Your task to perform on an android device: turn off location history Image 0: 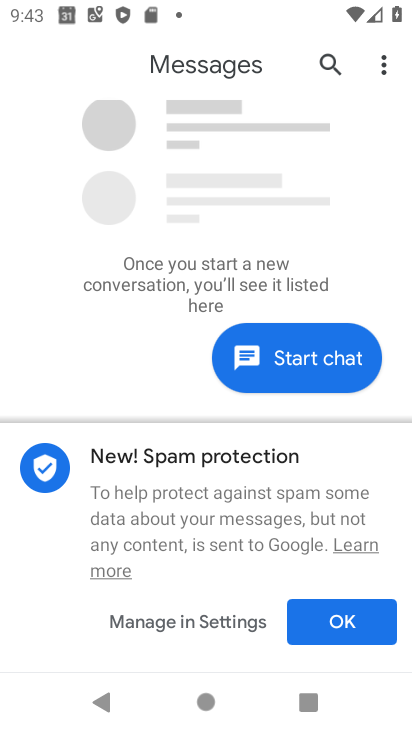
Step 0: press home button
Your task to perform on an android device: turn off location history Image 1: 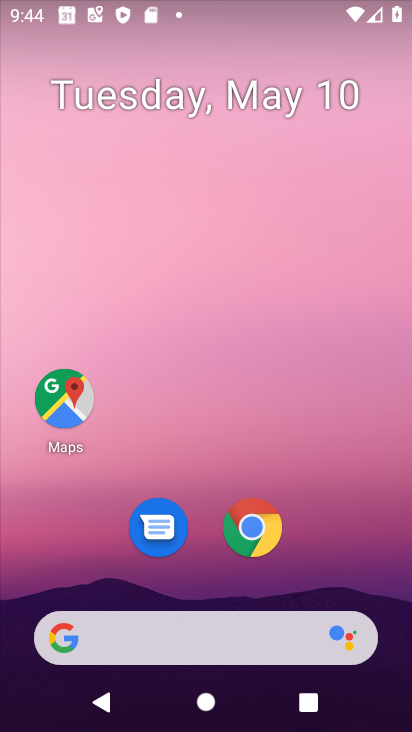
Step 1: drag from (258, 571) to (296, 141)
Your task to perform on an android device: turn off location history Image 2: 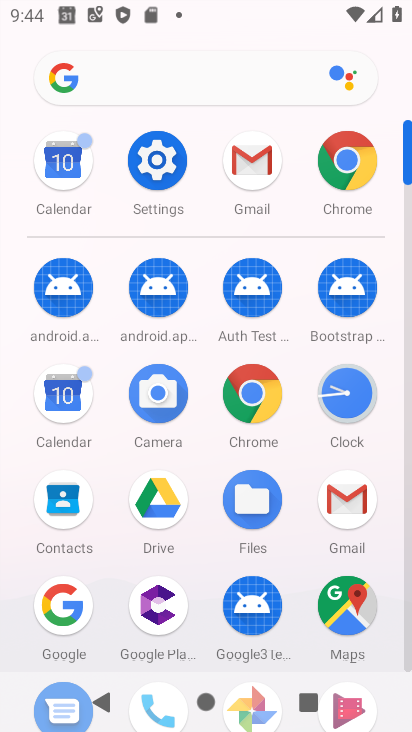
Step 2: click (165, 185)
Your task to perform on an android device: turn off location history Image 3: 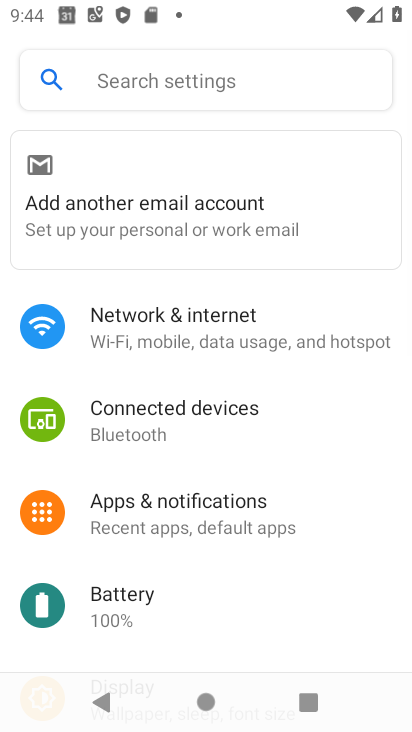
Step 3: drag from (238, 537) to (262, 210)
Your task to perform on an android device: turn off location history Image 4: 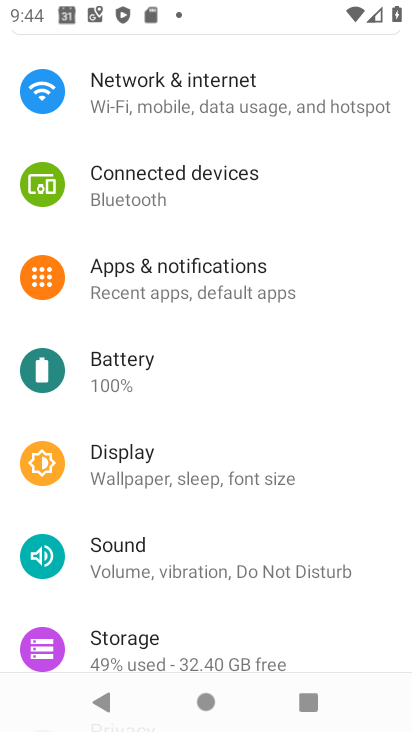
Step 4: drag from (173, 541) to (244, 296)
Your task to perform on an android device: turn off location history Image 5: 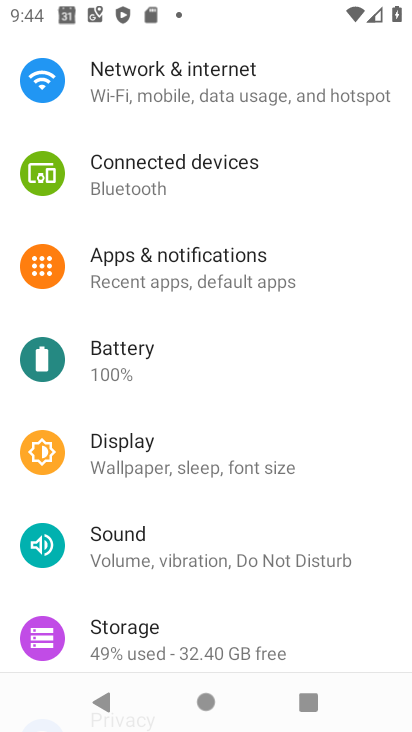
Step 5: drag from (213, 419) to (273, 197)
Your task to perform on an android device: turn off location history Image 6: 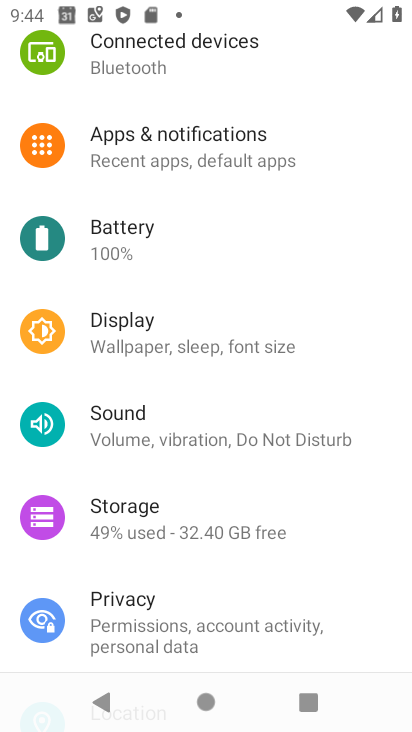
Step 6: drag from (197, 570) to (235, 360)
Your task to perform on an android device: turn off location history Image 7: 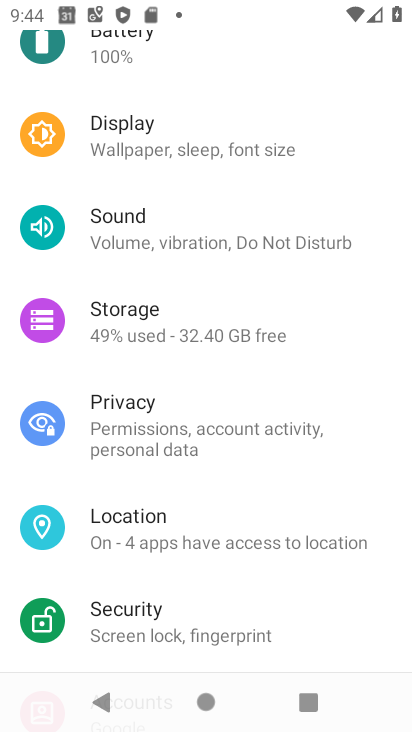
Step 7: drag from (213, 524) to (223, 326)
Your task to perform on an android device: turn off location history Image 8: 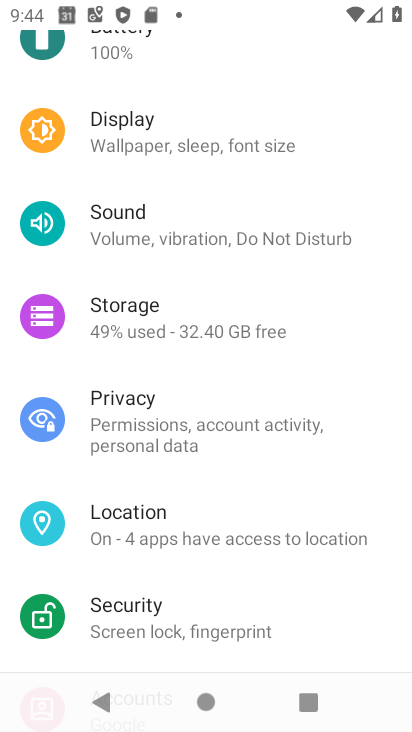
Step 8: click (170, 537)
Your task to perform on an android device: turn off location history Image 9: 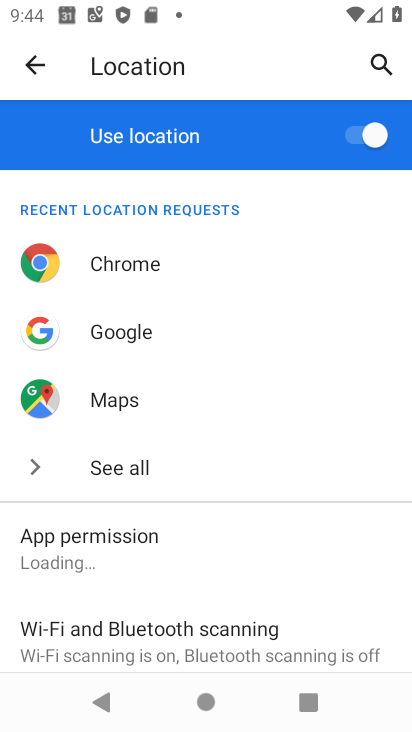
Step 9: drag from (117, 571) to (180, 364)
Your task to perform on an android device: turn off location history Image 10: 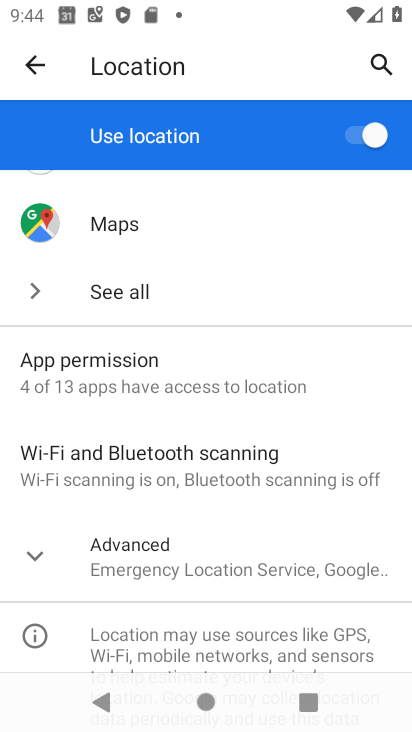
Step 10: click (253, 367)
Your task to perform on an android device: turn off location history Image 11: 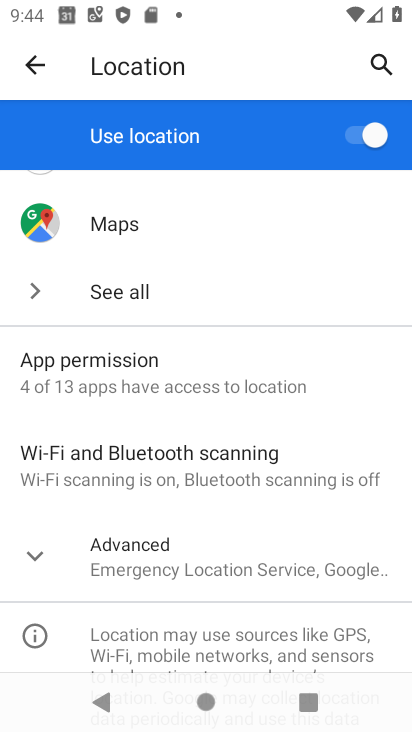
Step 11: click (152, 566)
Your task to perform on an android device: turn off location history Image 12: 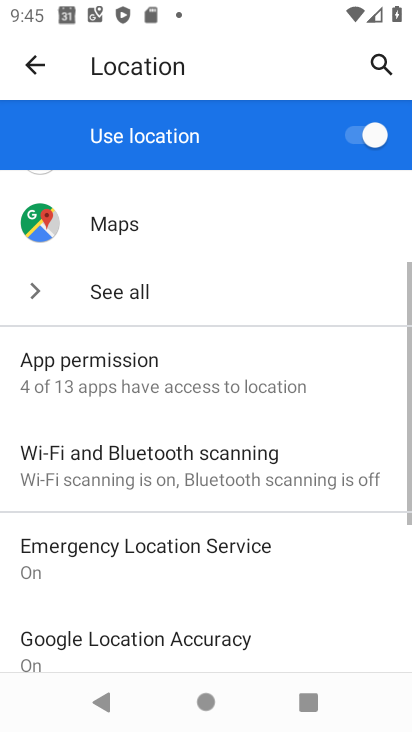
Step 12: task complete